Your task to perform on an android device: toggle show notifications on the lock screen Image 0: 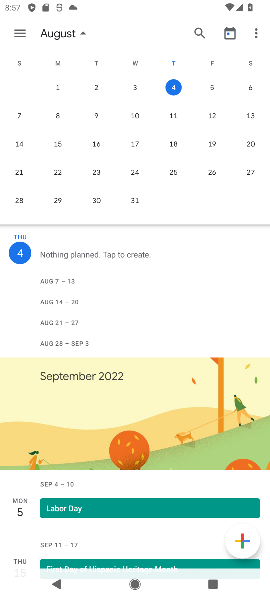
Step 0: drag from (152, 413) to (213, 93)
Your task to perform on an android device: toggle show notifications on the lock screen Image 1: 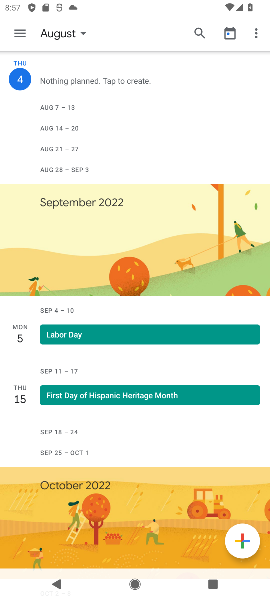
Step 1: press home button
Your task to perform on an android device: toggle show notifications on the lock screen Image 2: 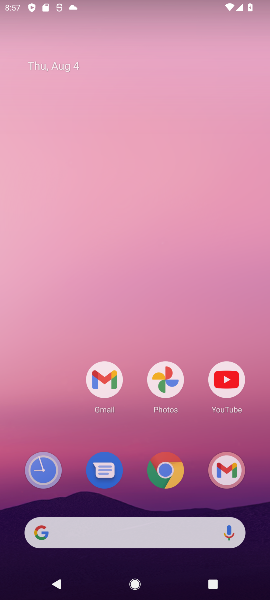
Step 2: drag from (132, 553) to (175, 137)
Your task to perform on an android device: toggle show notifications on the lock screen Image 3: 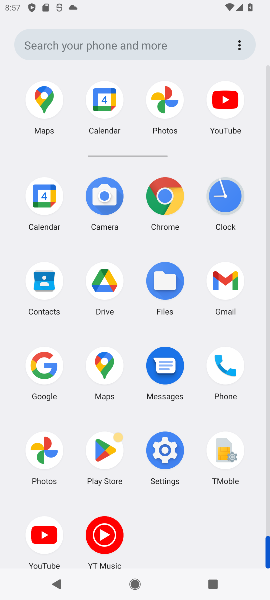
Step 3: click (160, 451)
Your task to perform on an android device: toggle show notifications on the lock screen Image 4: 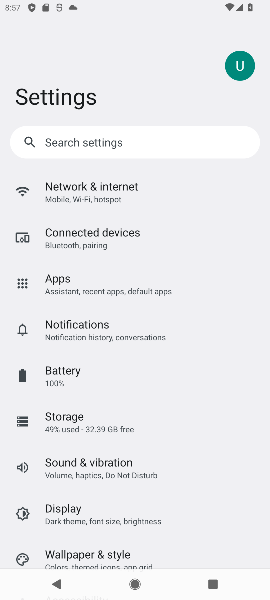
Step 4: click (82, 328)
Your task to perform on an android device: toggle show notifications on the lock screen Image 5: 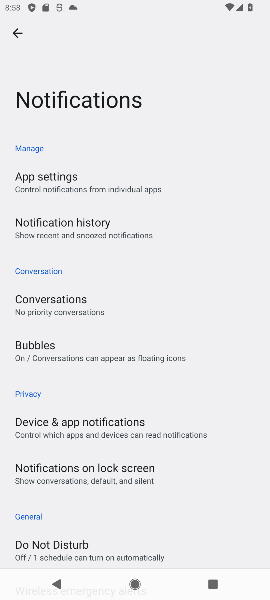
Step 5: click (86, 487)
Your task to perform on an android device: toggle show notifications on the lock screen Image 6: 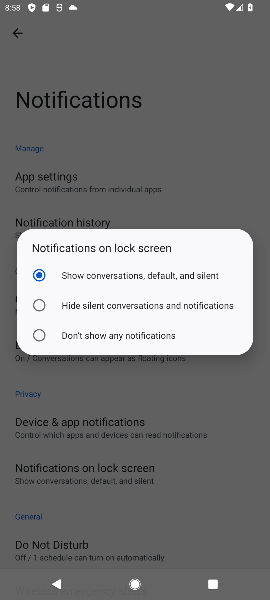
Step 6: task complete